Your task to perform on an android device: Add logitech g903 to the cart on walmart.com Image 0: 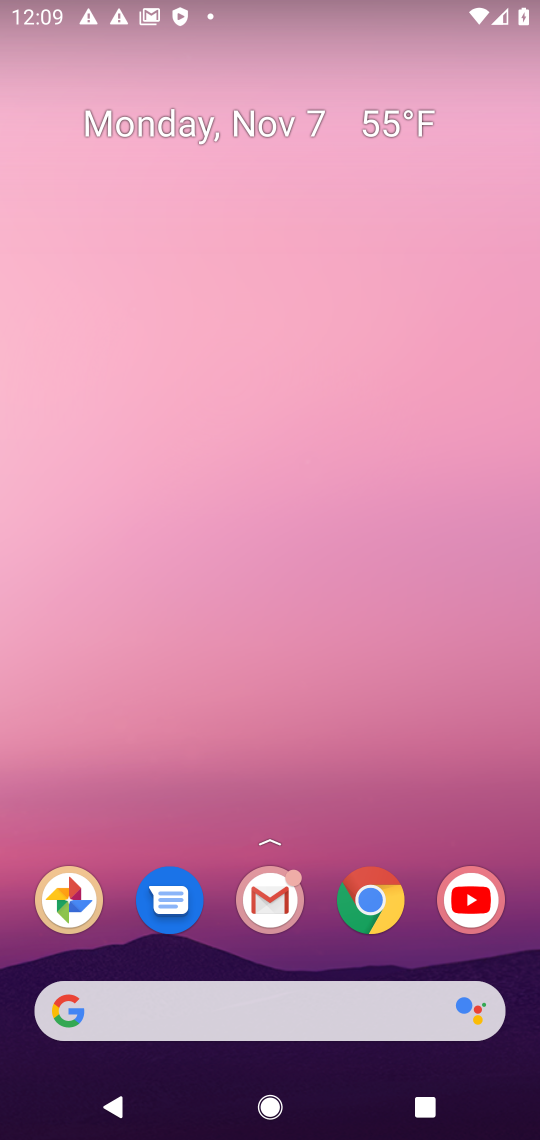
Step 0: click (169, 1029)
Your task to perform on an android device: Add logitech g903 to the cart on walmart.com Image 1: 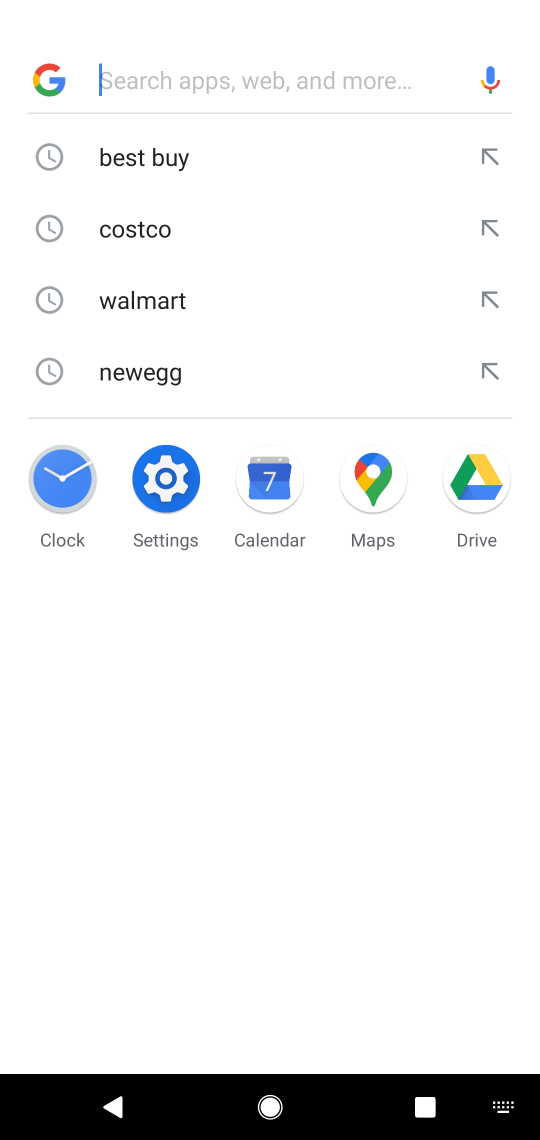
Step 1: click (284, 301)
Your task to perform on an android device: Add logitech g903 to the cart on walmart.com Image 2: 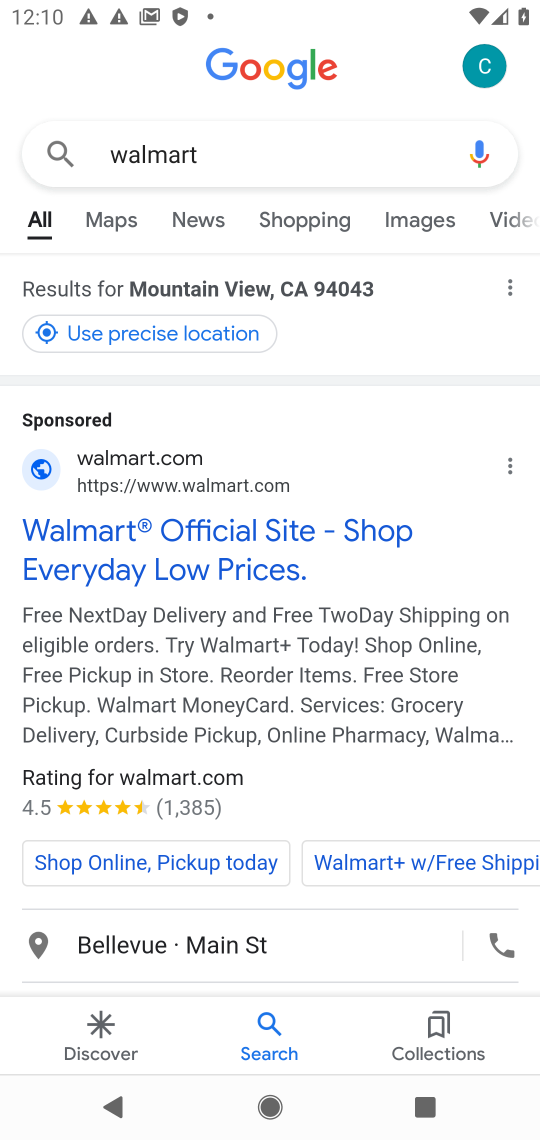
Step 2: click (310, 542)
Your task to perform on an android device: Add logitech g903 to the cart on walmart.com Image 3: 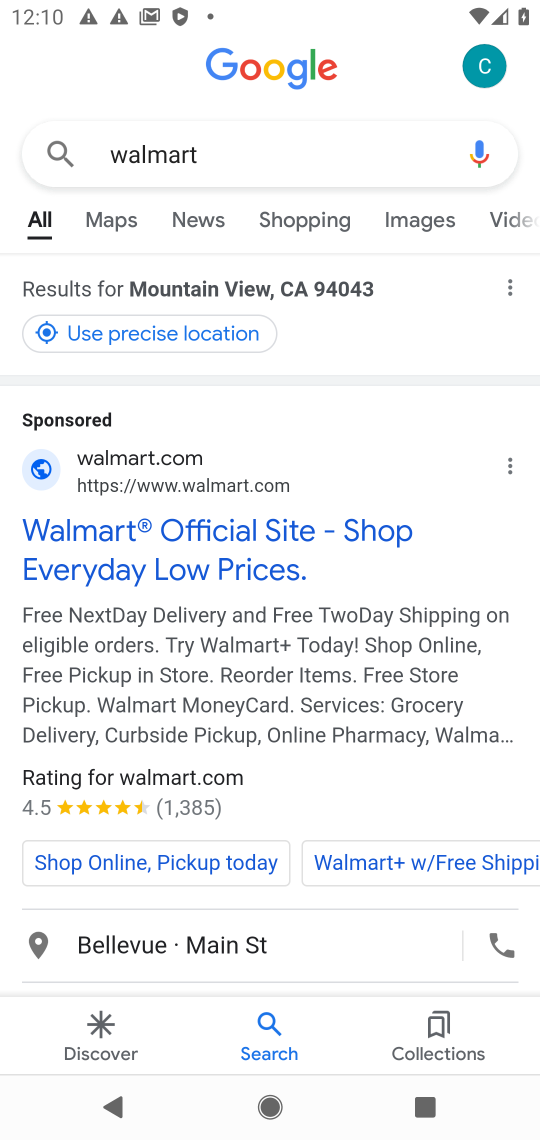
Step 3: task complete